Your task to perform on an android device: toggle notifications settings in the gmail app Image 0: 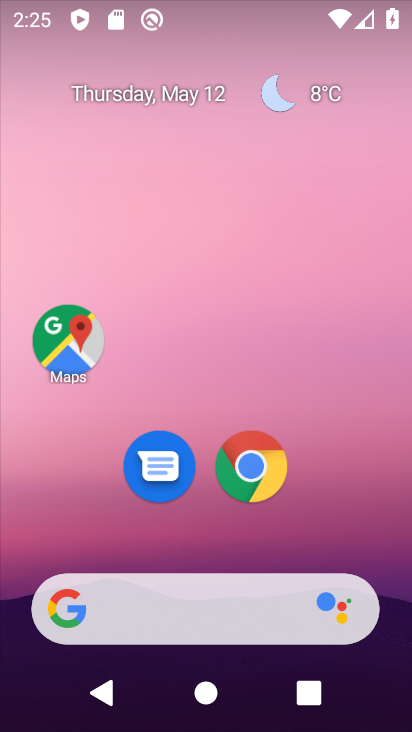
Step 0: drag from (351, 545) to (343, 96)
Your task to perform on an android device: toggle notifications settings in the gmail app Image 1: 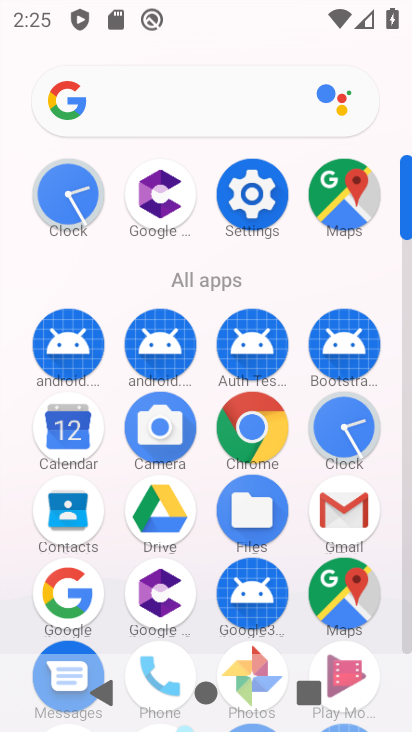
Step 1: click (334, 502)
Your task to perform on an android device: toggle notifications settings in the gmail app Image 2: 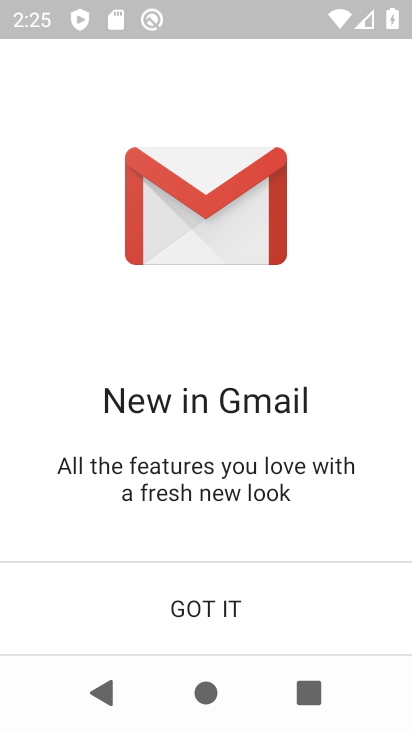
Step 2: click (214, 584)
Your task to perform on an android device: toggle notifications settings in the gmail app Image 3: 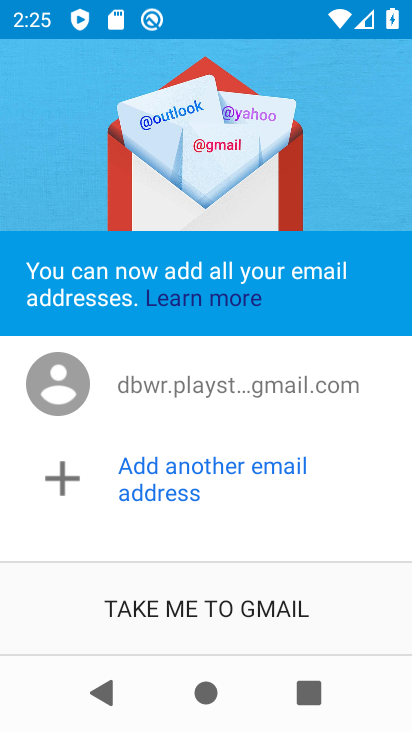
Step 3: click (170, 593)
Your task to perform on an android device: toggle notifications settings in the gmail app Image 4: 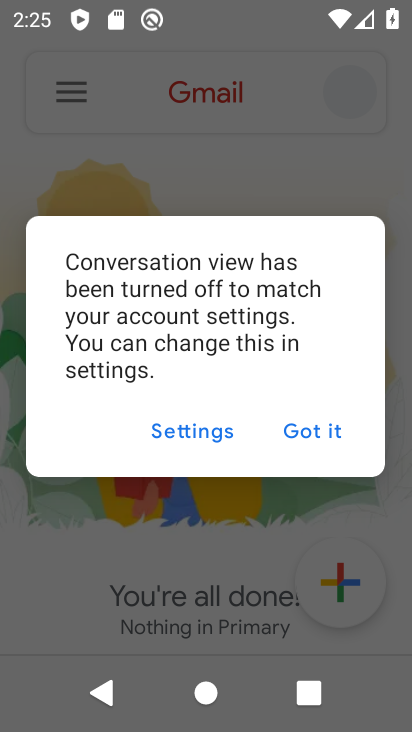
Step 4: click (290, 422)
Your task to perform on an android device: toggle notifications settings in the gmail app Image 5: 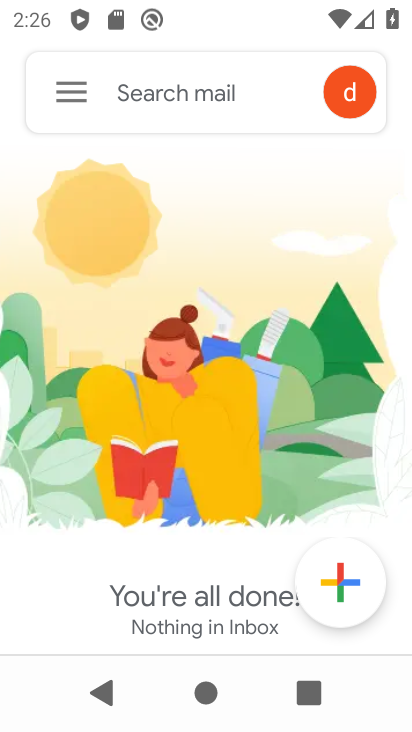
Step 5: click (56, 74)
Your task to perform on an android device: toggle notifications settings in the gmail app Image 6: 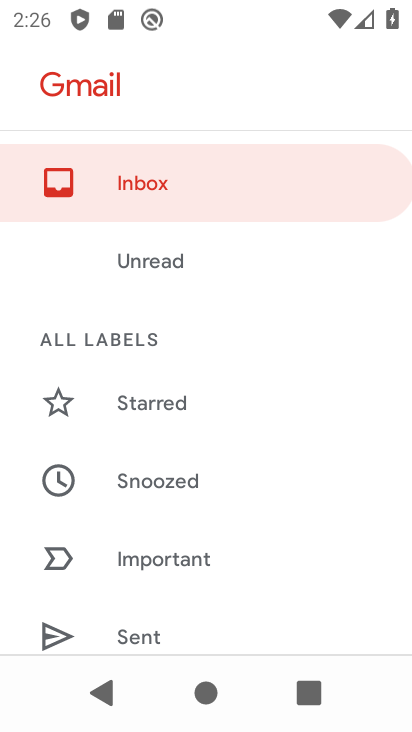
Step 6: drag from (273, 549) to (246, 225)
Your task to perform on an android device: toggle notifications settings in the gmail app Image 7: 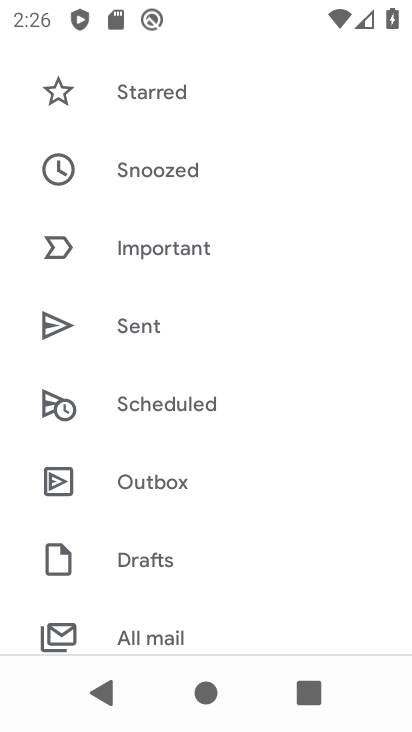
Step 7: drag from (225, 451) to (228, 196)
Your task to perform on an android device: toggle notifications settings in the gmail app Image 8: 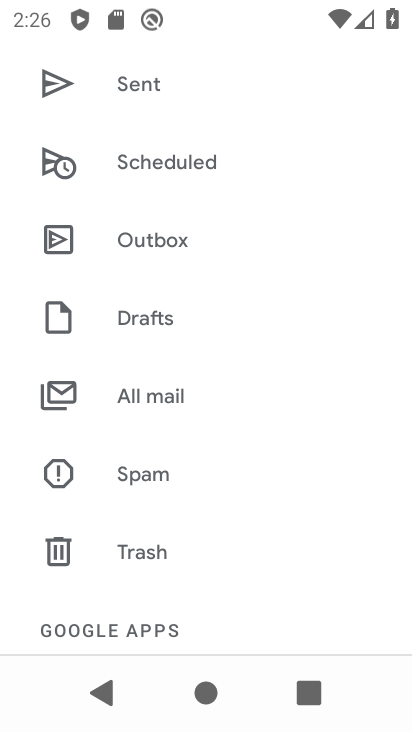
Step 8: drag from (183, 604) to (214, 167)
Your task to perform on an android device: toggle notifications settings in the gmail app Image 9: 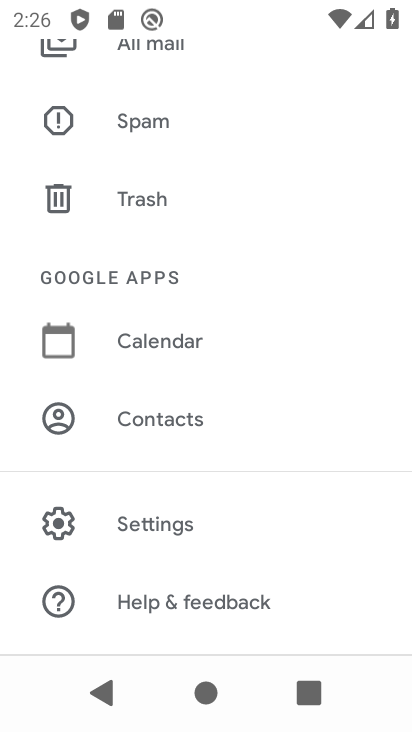
Step 9: click (156, 516)
Your task to perform on an android device: toggle notifications settings in the gmail app Image 10: 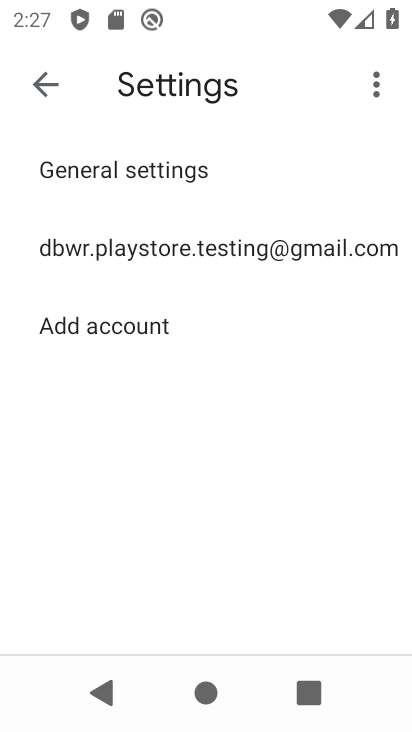
Step 10: click (112, 239)
Your task to perform on an android device: toggle notifications settings in the gmail app Image 11: 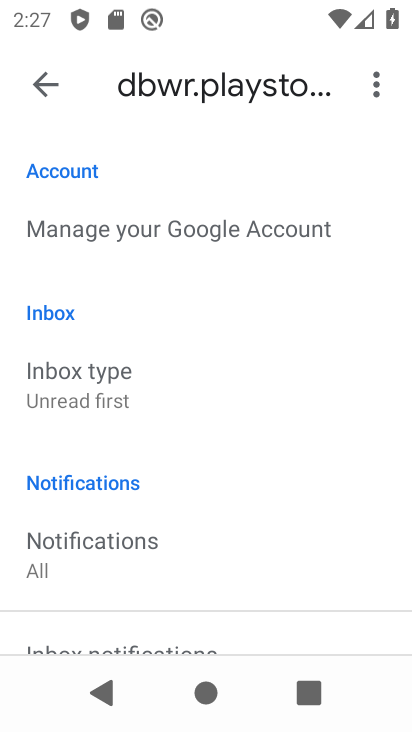
Step 11: drag from (136, 550) to (119, 174)
Your task to perform on an android device: toggle notifications settings in the gmail app Image 12: 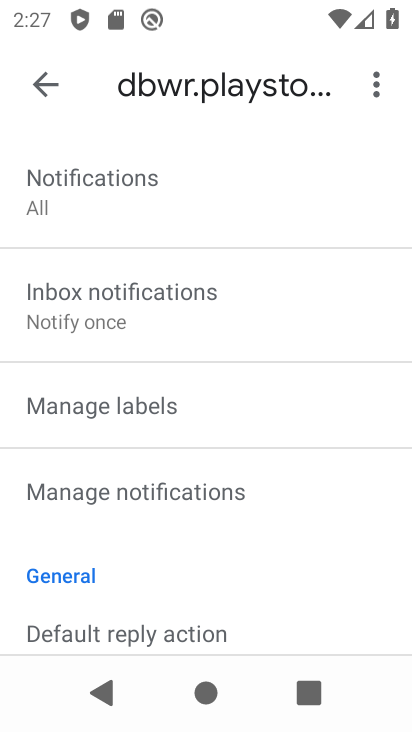
Step 12: click (121, 490)
Your task to perform on an android device: toggle notifications settings in the gmail app Image 13: 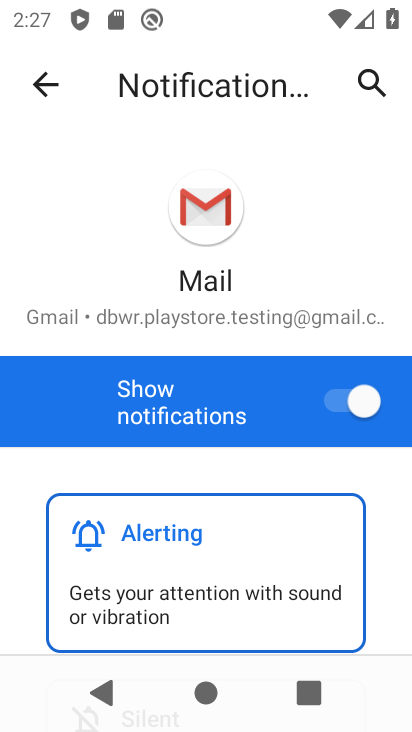
Step 13: click (337, 393)
Your task to perform on an android device: toggle notifications settings in the gmail app Image 14: 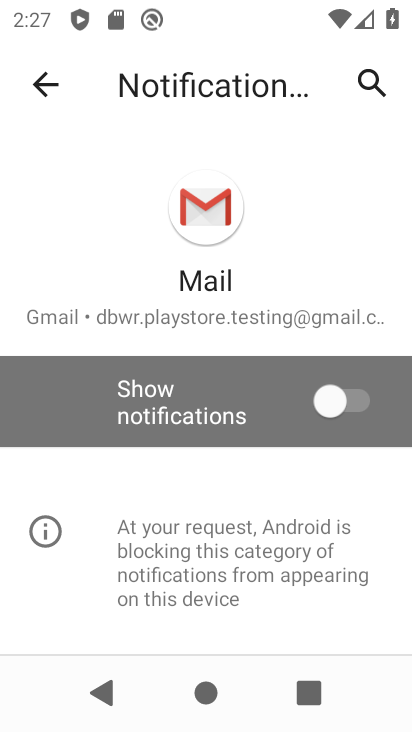
Step 14: task complete